Your task to perform on an android device: Open the map Image 0: 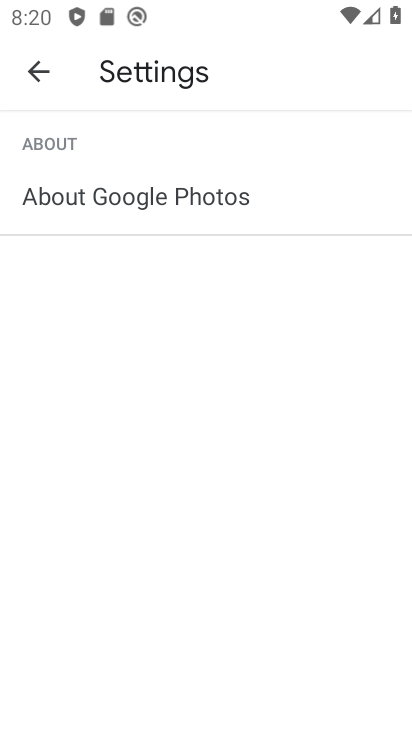
Step 0: press home button
Your task to perform on an android device: Open the map Image 1: 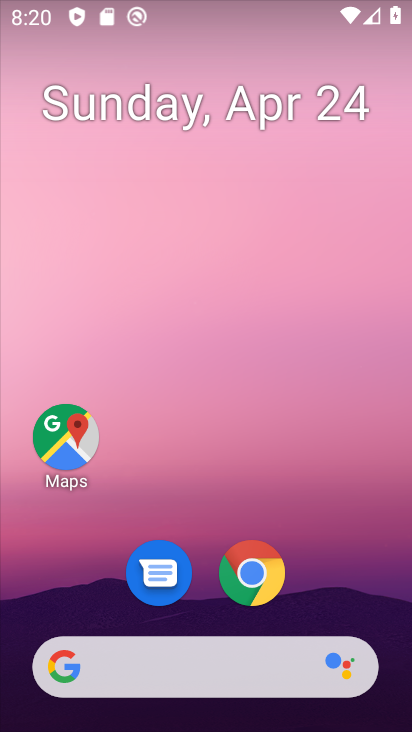
Step 1: click (54, 448)
Your task to perform on an android device: Open the map Image 2: 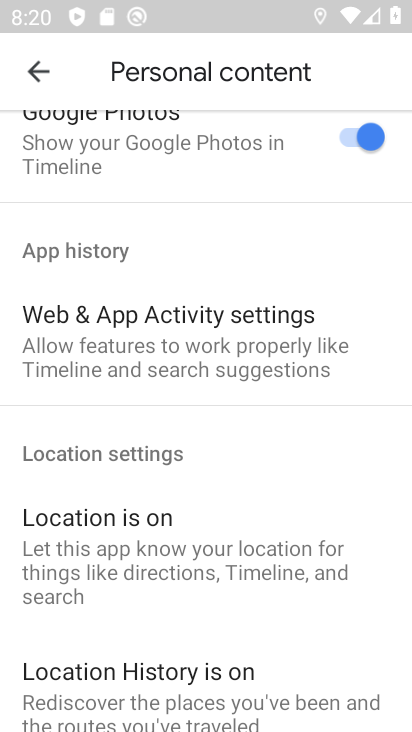
Step 2: click (28, 74)
Your task to perform on an android device: Open the map Image 3: 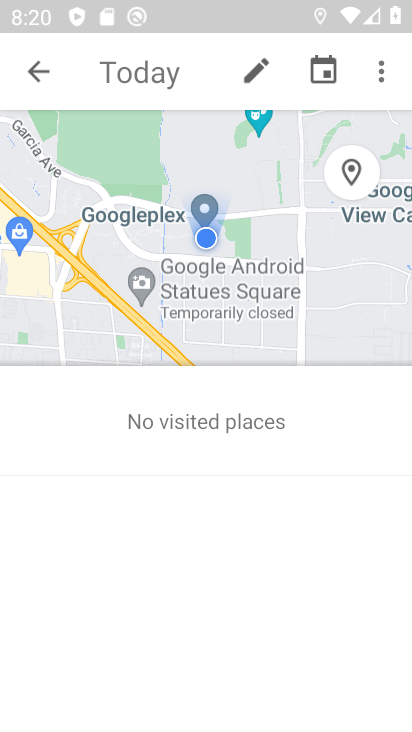
Step 3: task complete